Your task to perform on an android device: set an alarm Image 0: 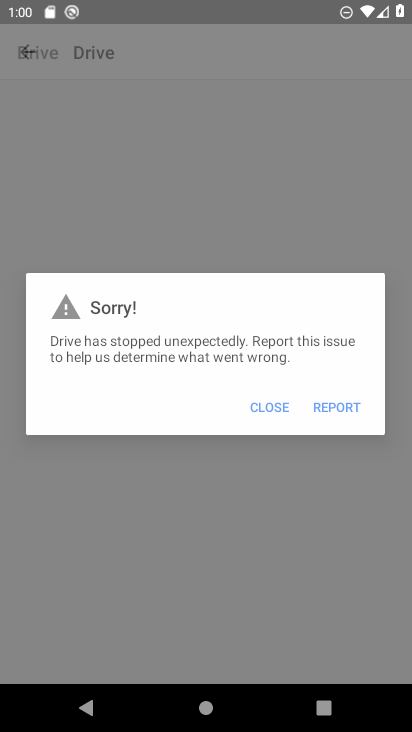
Step 0: click (131, 569)
Your task to perform on an android device: set an alarm Image 1: 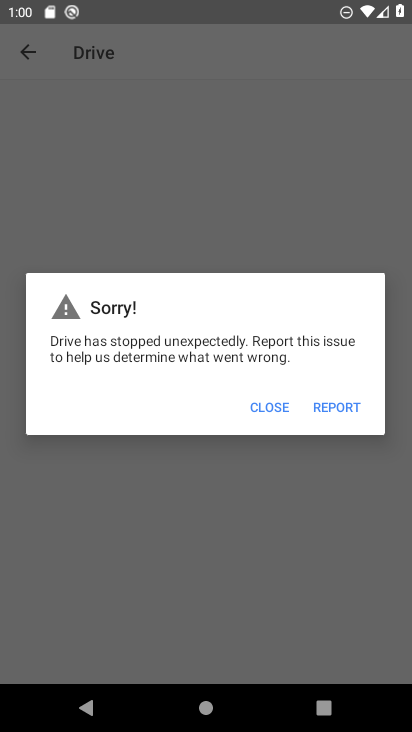
Step 1: press home button
Your task to perform on an android device: set an alarm Image 2: 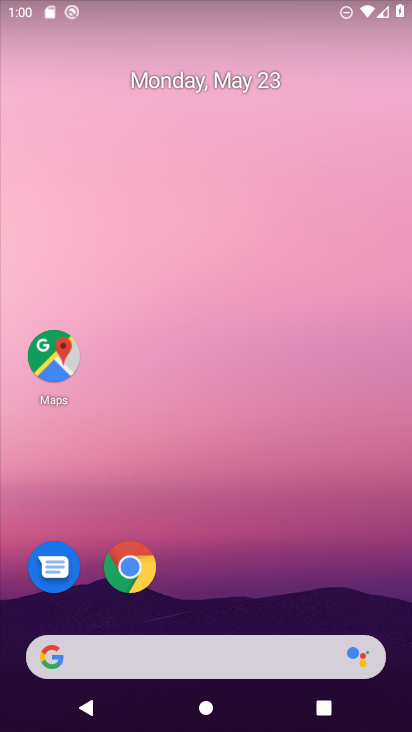
Step 2: drag from (216, 614) to (332, 18)
Your task to perform on an android device: set an alarm Image 3: 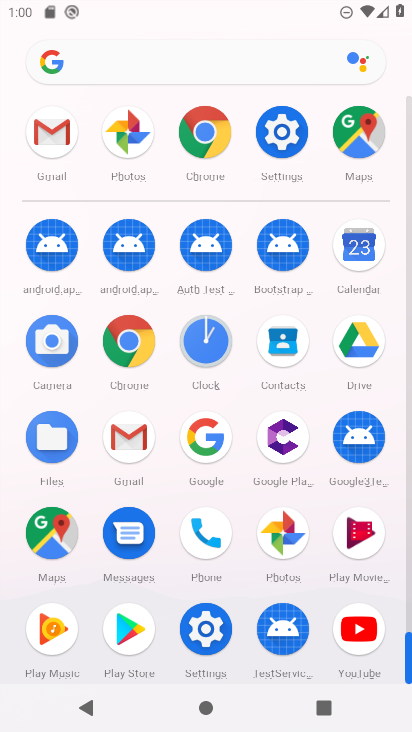
Step 3: click (200, 352)
Your task to perform on an android device: set an alarm Image 4: 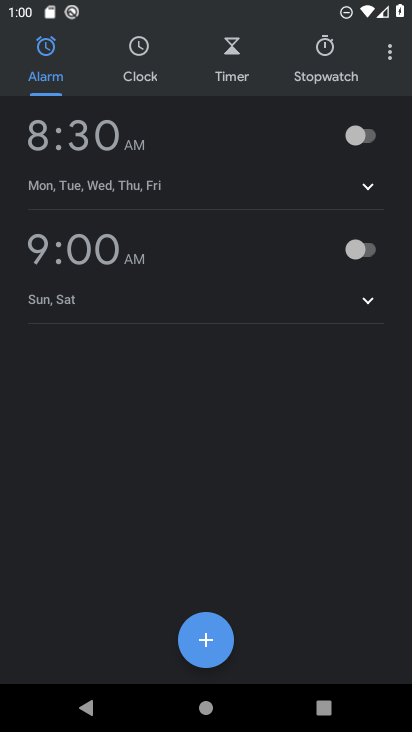
Step 4: click (369, 140)
Your task to perform on an android device: set an alarm Image 5: 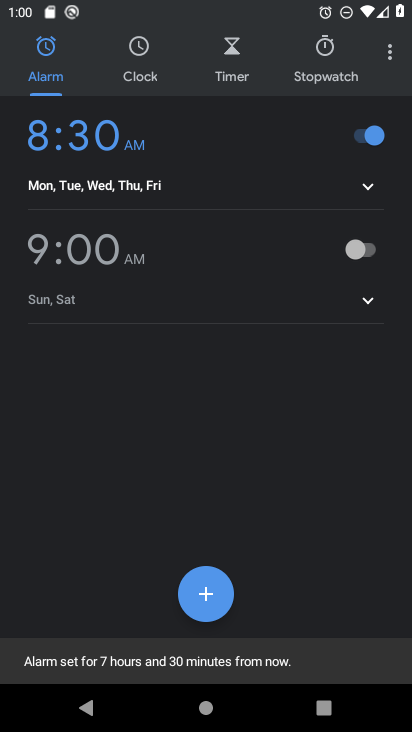
Step 5: task complete